Your task to perform on an android device: Open Reddit.com Image 0: 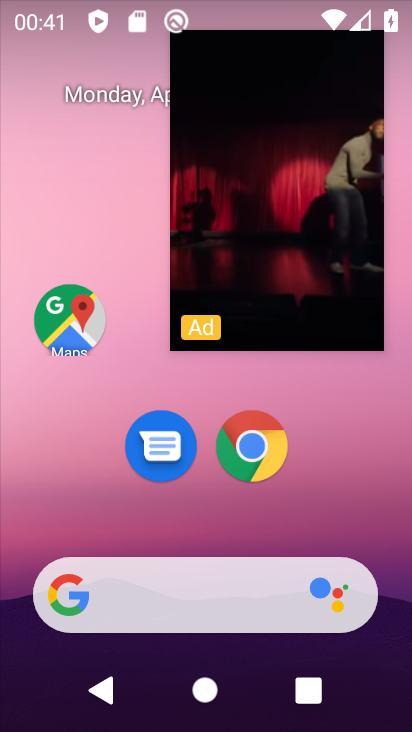
Step 0: click (261, 423)
Your task to perform on an android device: Open Reddit.com Image 1: 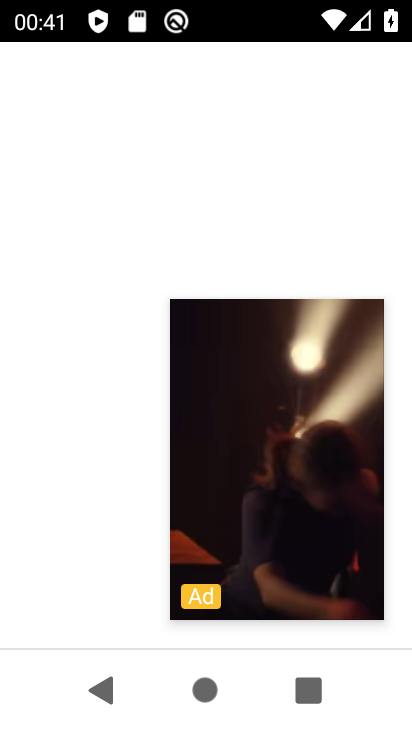
Step 1: click (302, 388)
Your task to perform on an android device: Open Reddit.com Image 2: 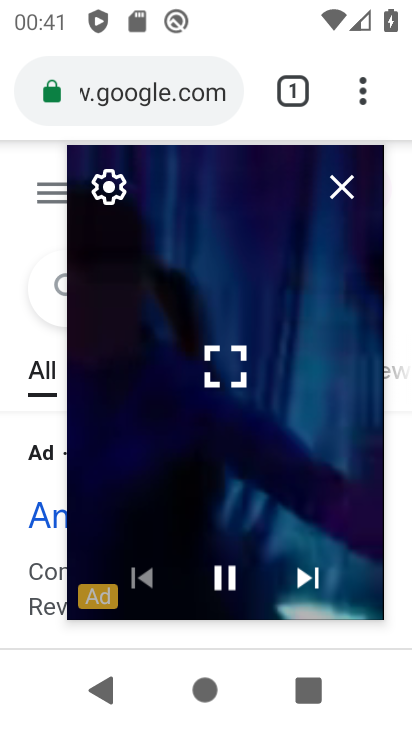
Step 2: click (339, 192)
Your task to perform on an android device: Open Reddit.com Image 3: 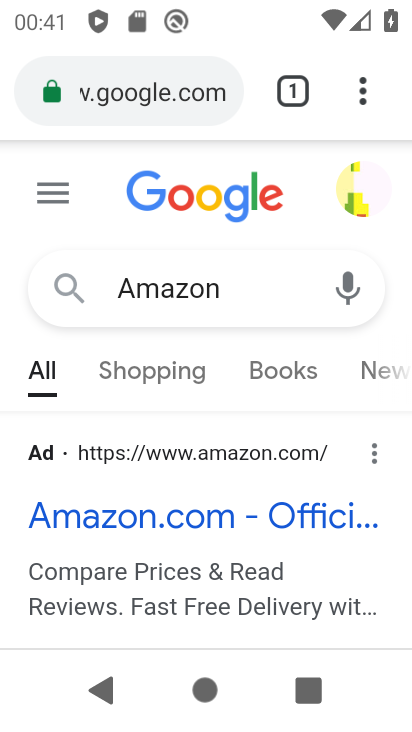
Step 3: click (153, 95)
Your task to perform on an android device: Open Reddit.com Image 4: 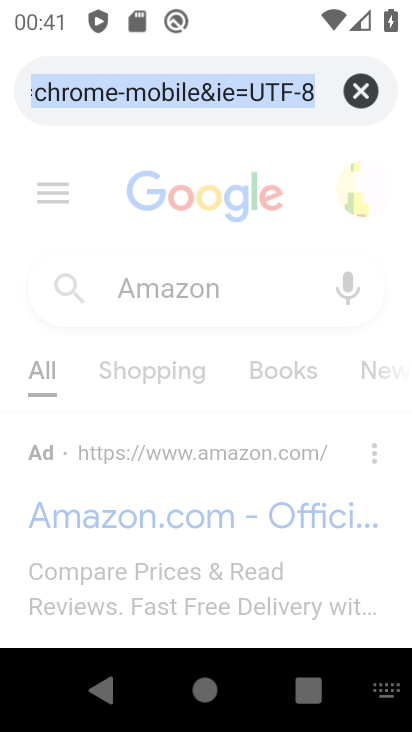
Step 4: type "reddit.com"
Your task to perform on an android device: Open Reddit.com Image 5: 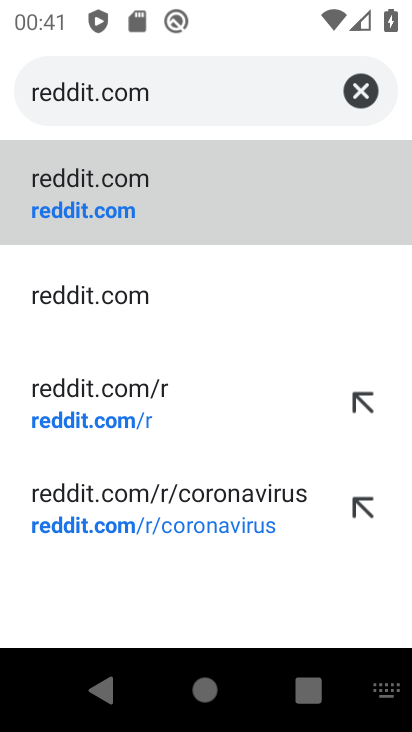
Step 5: click (111, 199)
Your task to perform on an android device: Open Reddit.com Image 6: 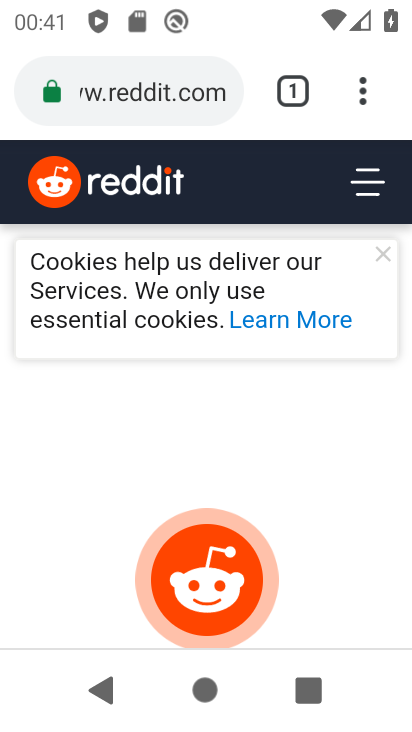
Step 6: click (387, 248)
Your task to perform on an android device: Open Reddit.com Image 7: 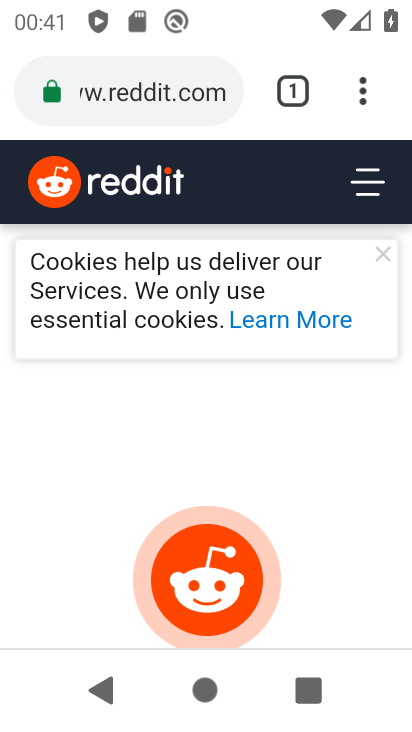
Step 7: task complete